Your task to perform on an android device: install app "VLC for Android" Image 0: 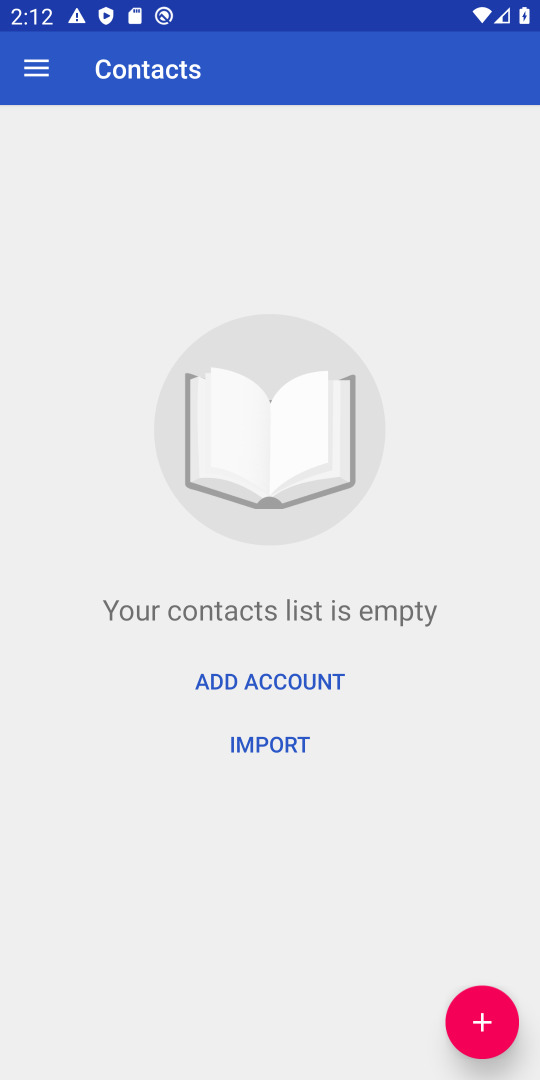
Step 0: press home button
Your task to perform on an android device: install app "VLC for Android" Image 1: 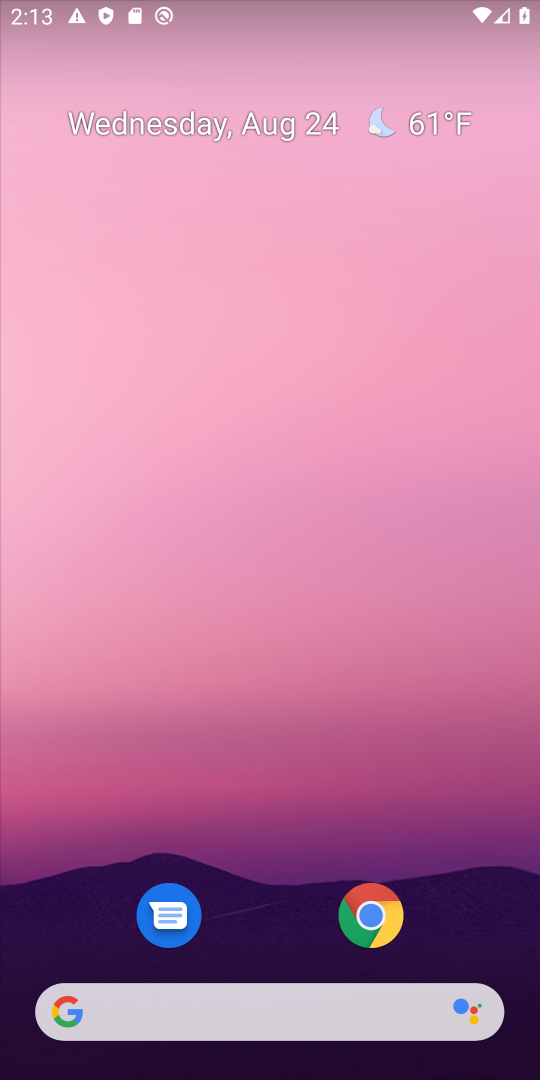
Step 1: drag from (262, 741) to (314, 7)
Your task to perform on an android device: install app "VLC for Android" Image 2: 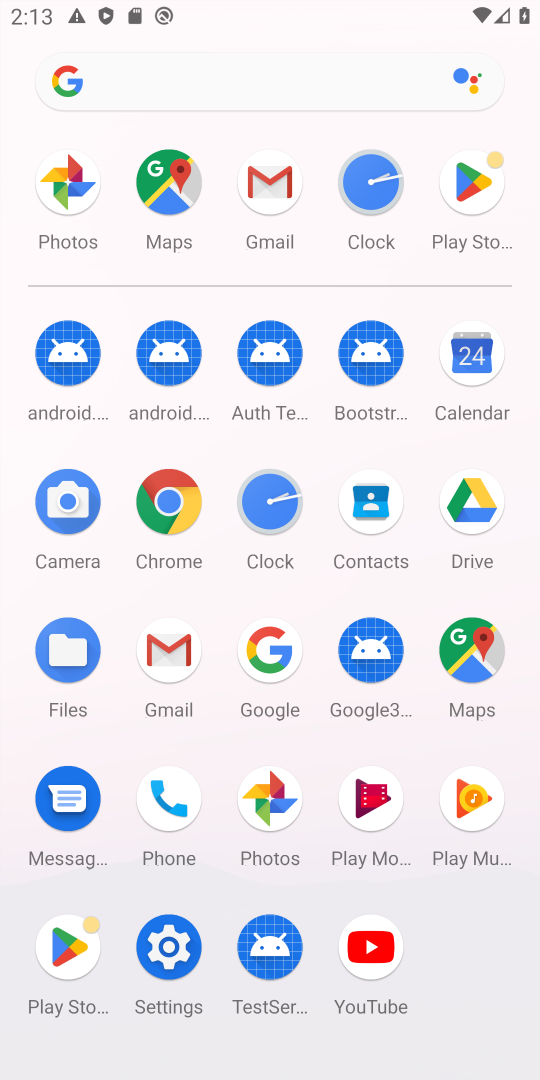
Step 2: click (496, 170)
Your task to perform on an android device: install app "VLC for Android" Image 3: 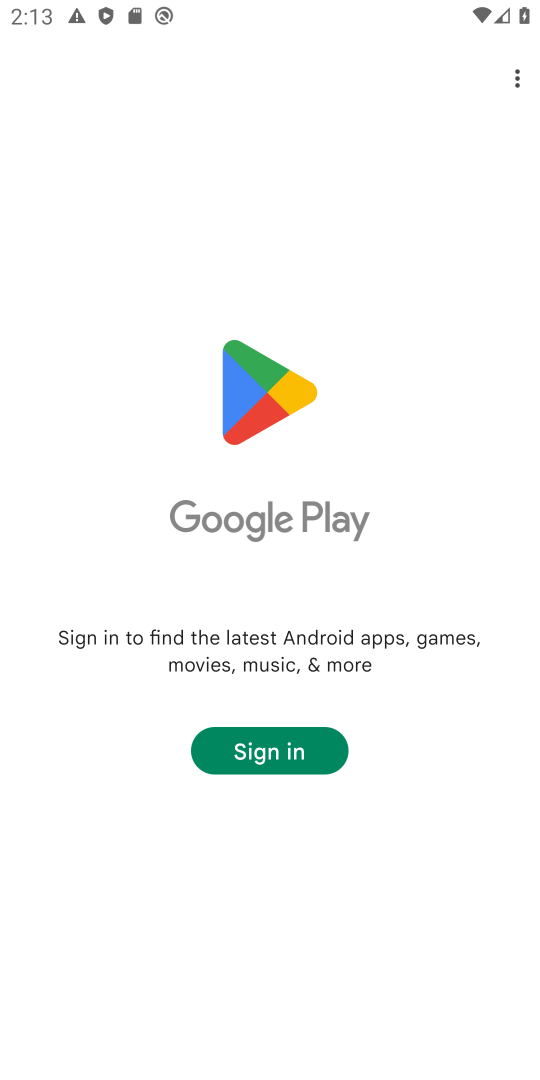
Step 3: task complete